Your task to perform on an android device: toggle airplane mode Image 0: 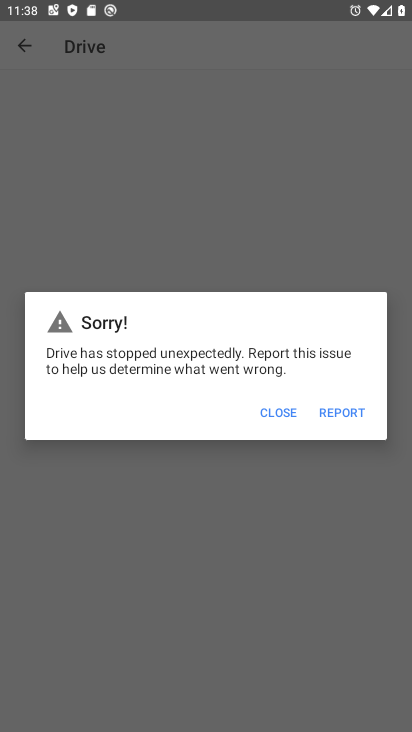
Step 0: press home button
Your task to perform on an android device: toggle airplane mode Image 1: 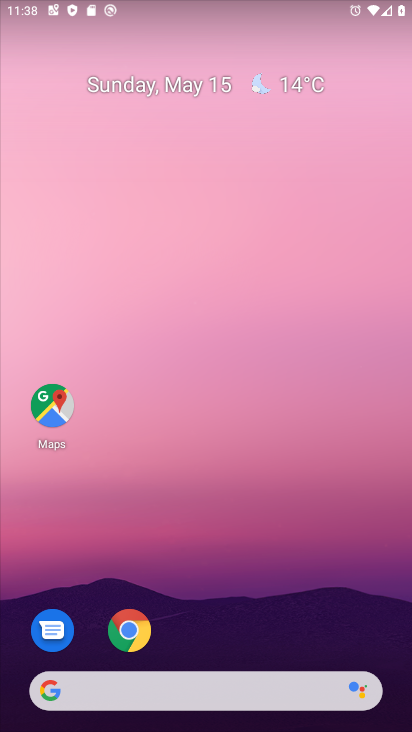
Step 1: drag from (206, 722) to (205, 135)
Your task to perform on an android device: toggle airplane mode Image 2: 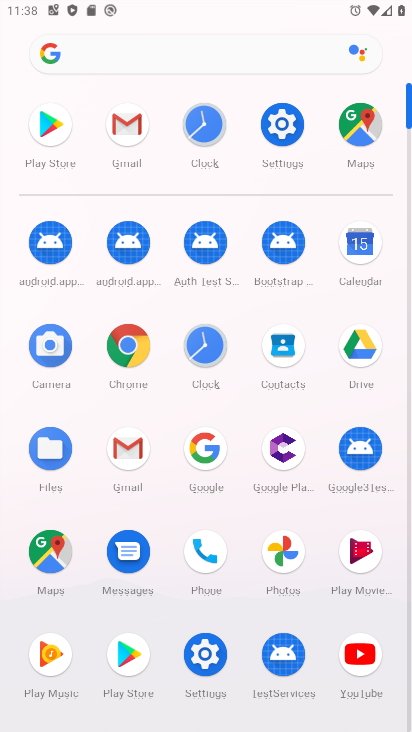
Step 2: click (285, 123)
Your task to perform on an android device: toggle airplane mode Image 3: 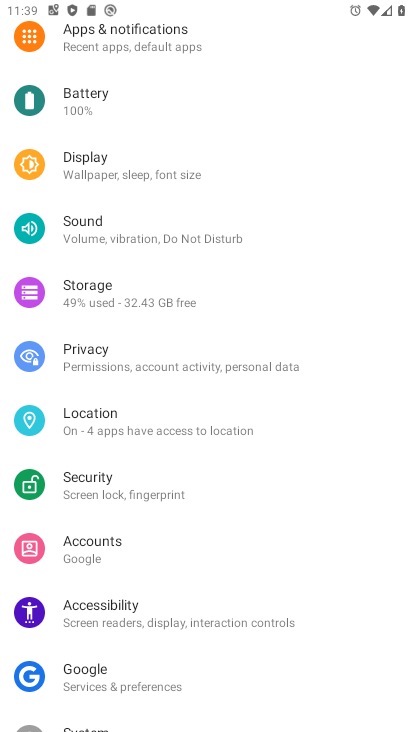
Step 3: drag from (229, 104) to (212, 406)
Your task to perform on an android device: toggle airplane mode Image 4: 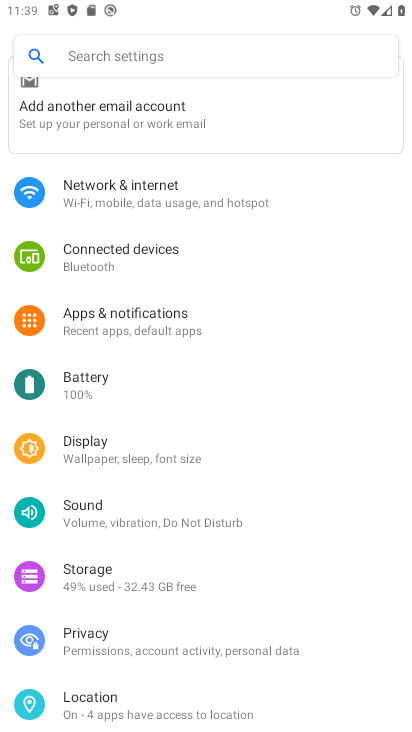
Step 4: click (136, 196)
Your task to perform on an android device: toggle airplane mode Image 5: 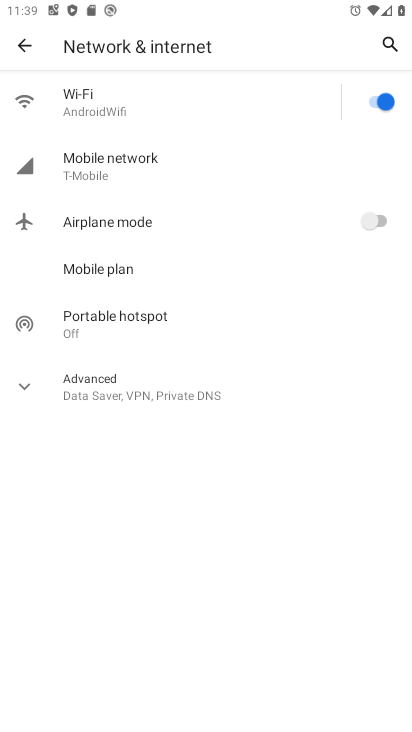
Step 5: click (385, 218)
Your task to perform on an android device: toggle airplane mode Image 6: 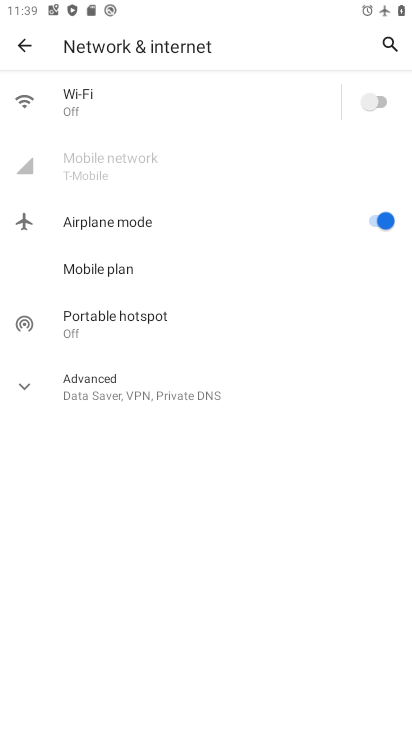
Step 6: task complete